Your task to perform on an android device: change your default location settings in chrome Image 0: 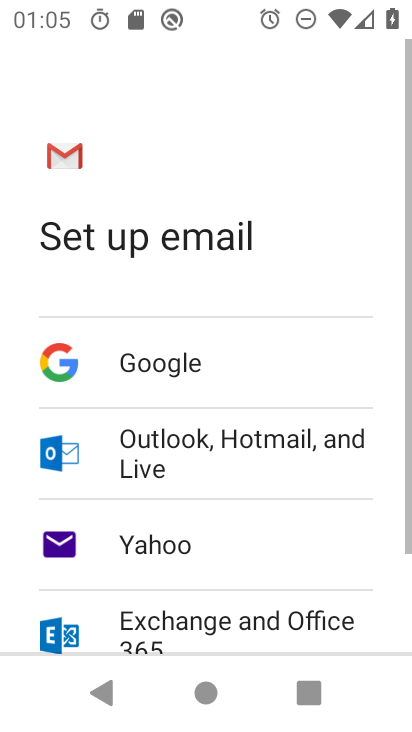
Step 0: press home button
Your task to perform on an android device: change your default location settings in chrome Image 1: 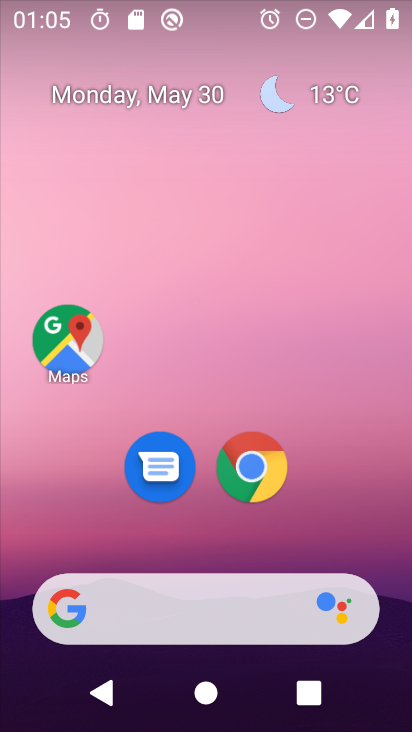
Step 1: click (253, 480)
Your task to perform on an android device: change your default location settings in chrome Image 2: 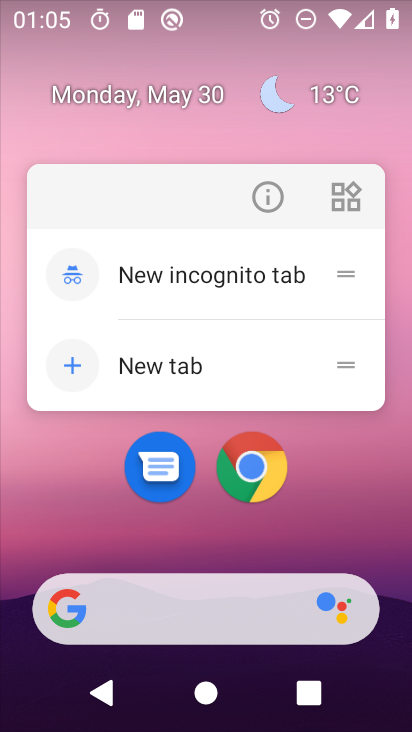
Step 2: click (271, 473)
Your task to perform on an android device: change your default location settings in chrome Image 3: 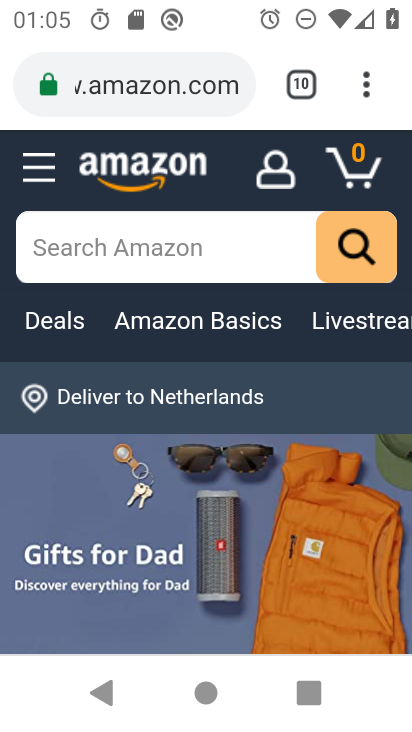
Step 3: drag from (361, 73) to (132, 537)
Your task to perform on an android device: change your default location settings in chrome Image 4: 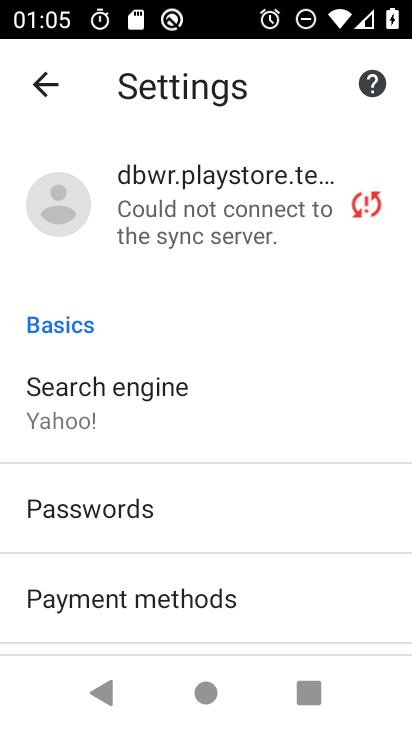
Step 4: click (109, 430)
Your task to perform on an android device: change your default location settings in chrome Image 5: 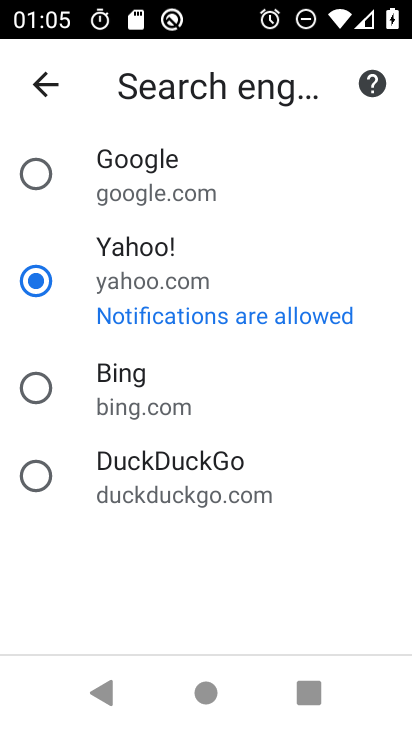
Step 5: click (120, 165)
Your task to perform on an android device: change your default location settings in chrome Image 6: 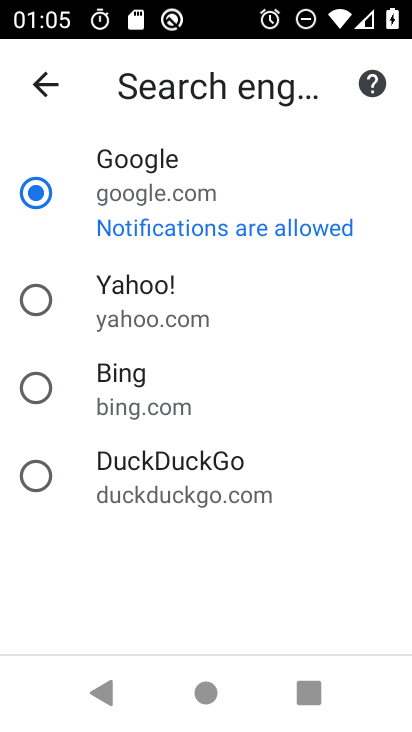
Step 6: task complete